Your task to perform on an android device: turn off notifications in google photos Image 0: 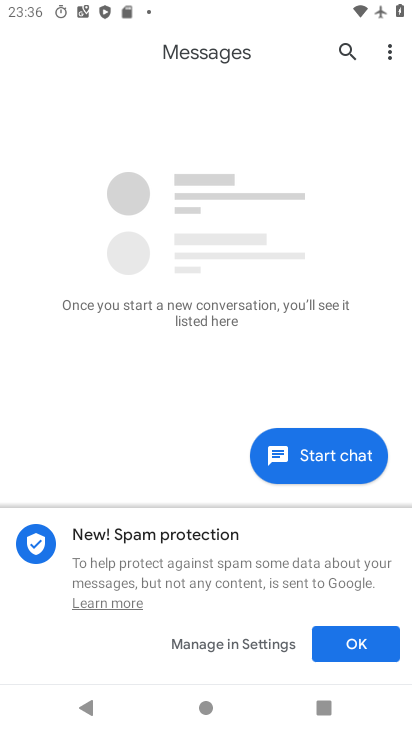
Step 0: press home button
Your task to perform on an android device: turn off notifications in google photos Image 1: 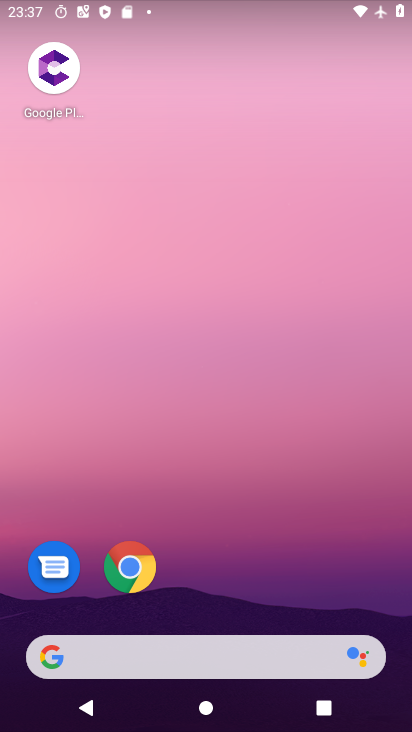
Step 1: drag from (272, 404) to (272, 184)
Your task to perform on an android device: turn off notifications in google photos Image 2: 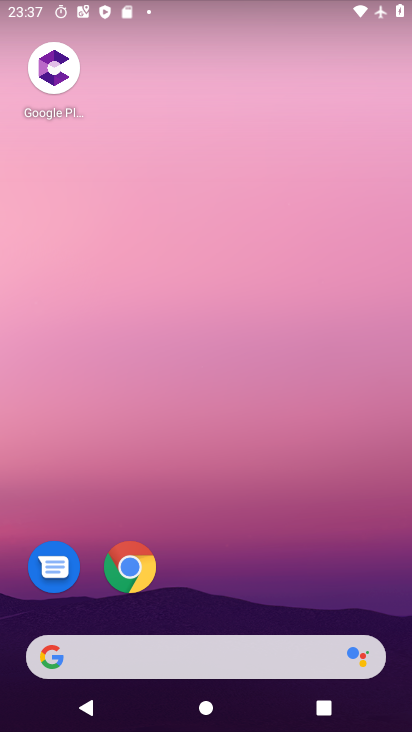
Step 2: drag from (265, 559) to (245, 310)
Your task to perform on an android device: turn off notifications in google photos Image 3: 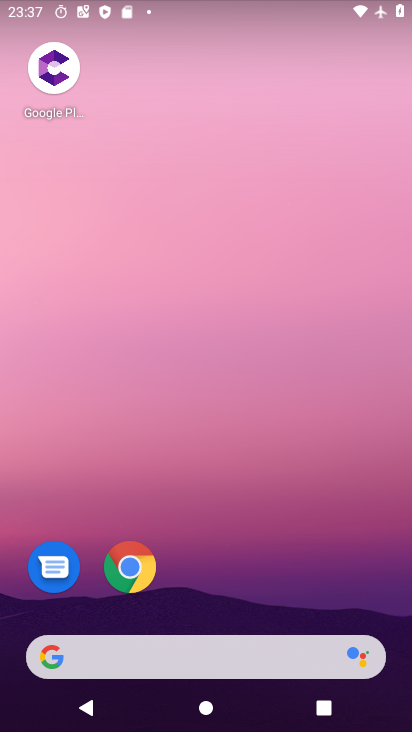
Step 3: drag from (222, 470) to (238, 240)
Your task to perform on an android device: turn off notifications in google photos Image 4: 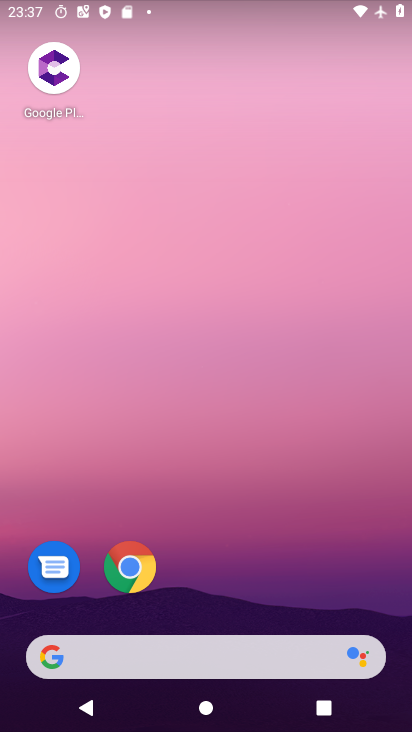
Step 4: drag from (202, 635) to (244, 109)
Your task to perform on an android device: turn off notifications in google photos Image 5: 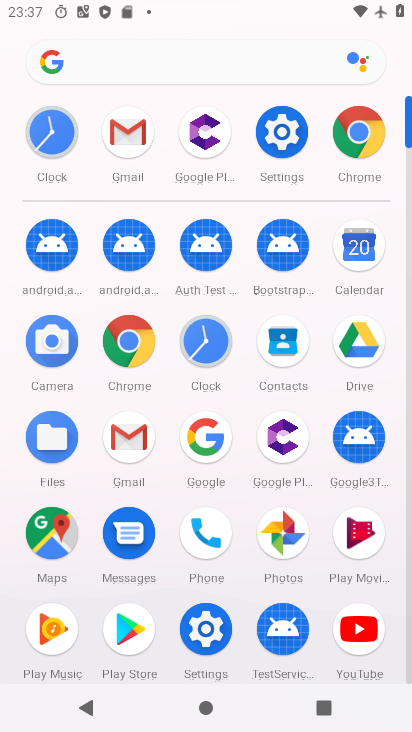
Step 5: click (273, 532)
Your task to perform on an android device: turn off notifications in google photos Image 6: 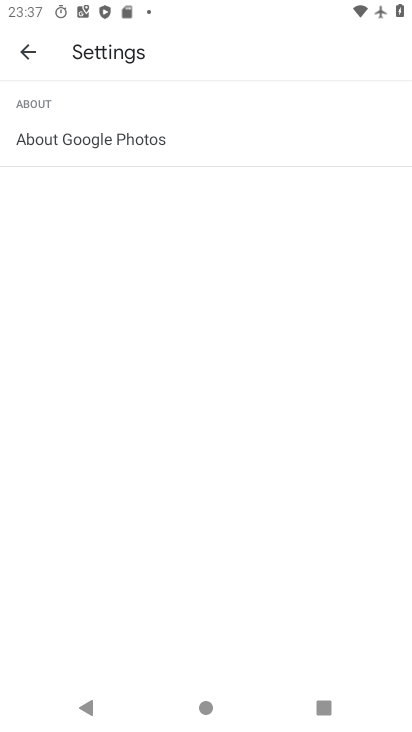
Step 6: click (38, 60)
Your task to perform on an android device: turn off notifications in google photos Image 7: 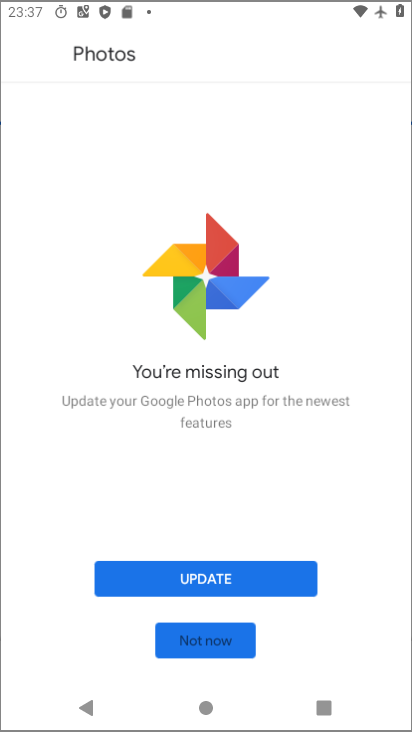
Step 7: click (157, 652)
Your task to perform on an android device: turn off notifications in google photos Image 8: 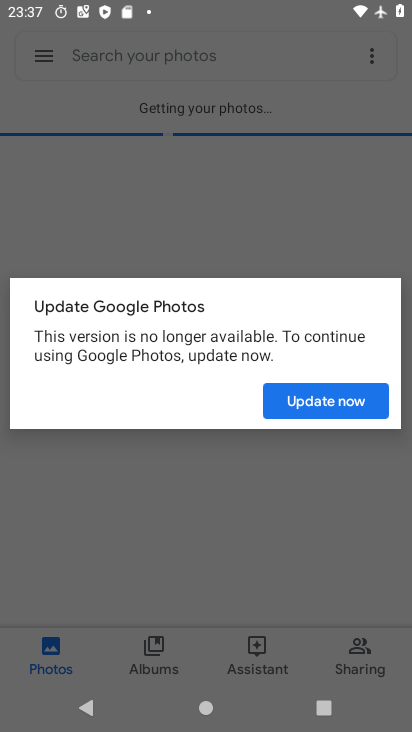
Step 8: click (201, 653)
Your task to perform on an android device: turn off notifications in google photos Image 9: 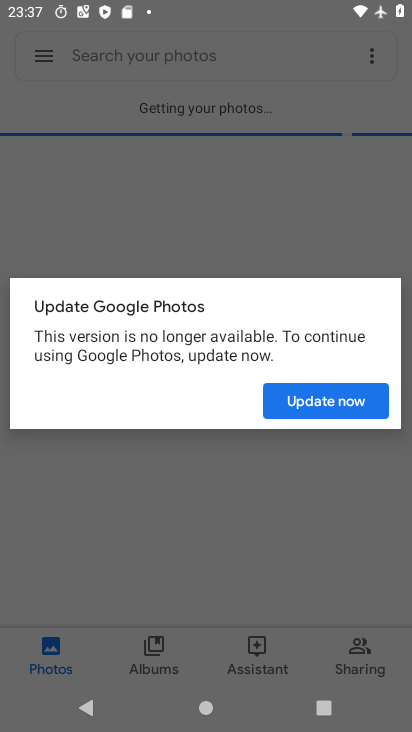
Step 9: click (319, 402)
Your task to perform on an android device: turn off notifications in google photos Image 10: 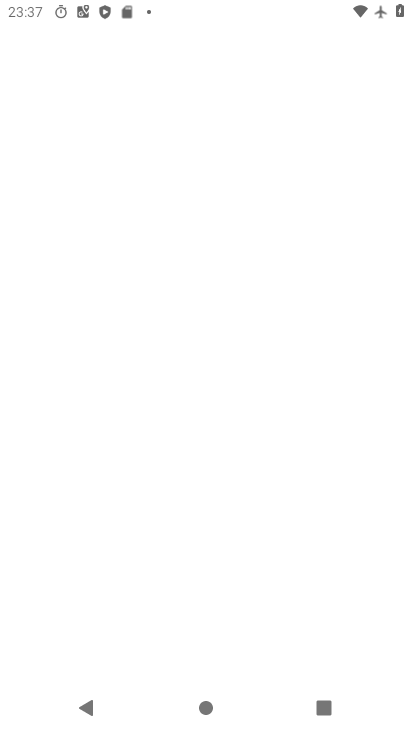
Step 10: press back button
Your task to perform on an android device: turn off notifications in google photos Image 11: 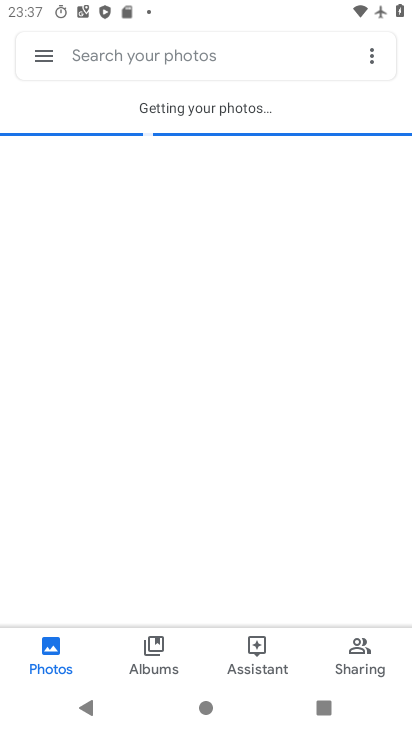
Step 11: click (37, 53)
Your task to perform on an android device: turn off notifications in google photos Image 12: 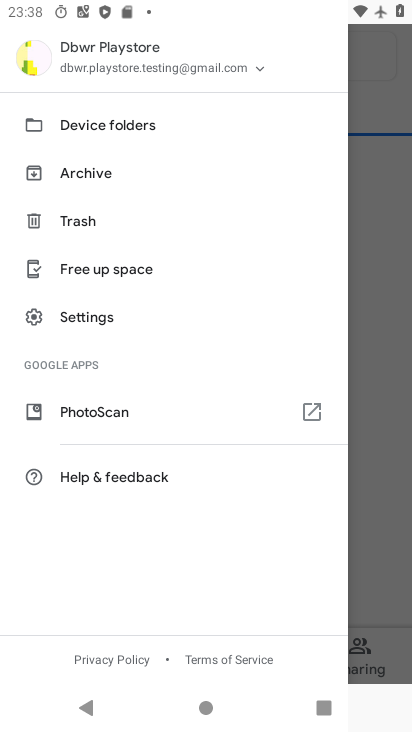
Step 12: click (105, 309)
Your task to perform on an android device: turn off notifications in google photos Image 13: 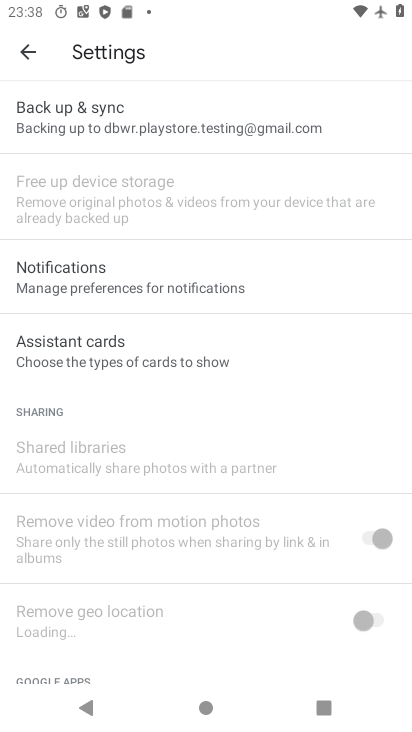
Step 13: drag from (149, 525) to (185, 638)
Your task to perform on an android device: turn off notifications in google photos Image 14: 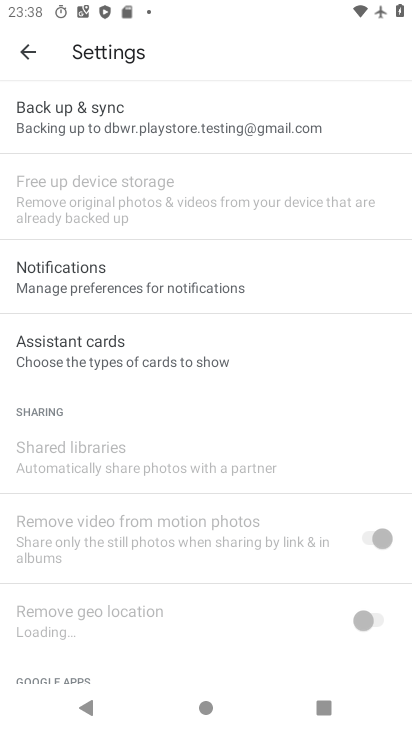
Step 14: click (63, 287)
Your task to perform on an android device: turn off notifications in google photos Image 15: 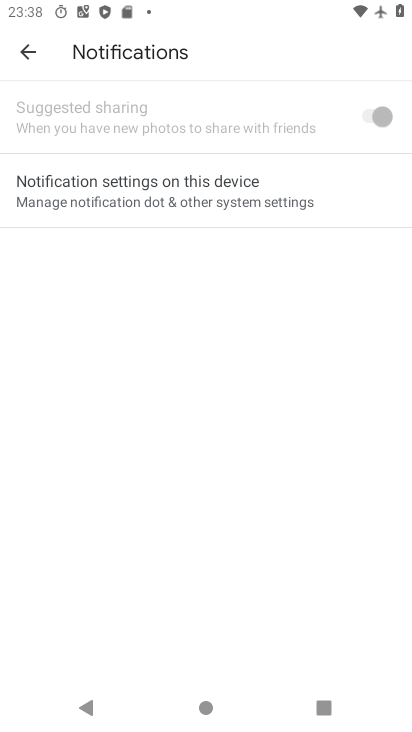
Step 15: click (241, 167)
Your task to perform on an android device: turn off notifications in google photos Image 16: 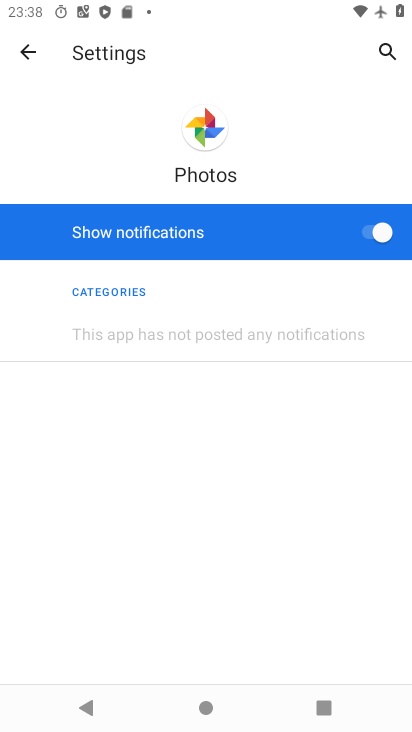
Step 16: click (369, 219)
Your task to perform on an android device: turn off notifications in google photos Image 17: 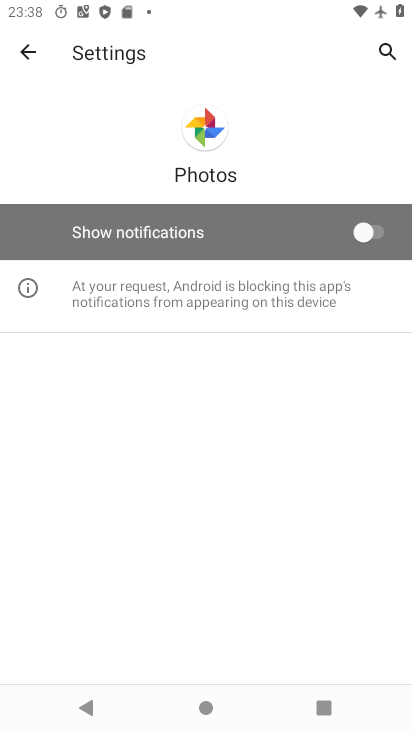
Step 17: task complete